Your task to perform on an android device: turn on location history Image 0: 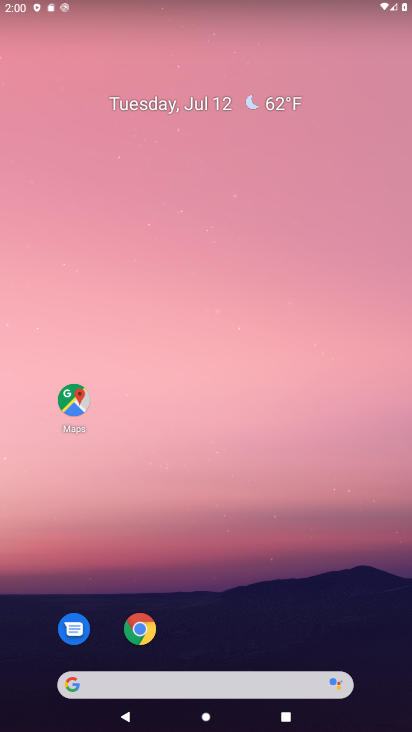
Step 0: drag from (220, 651) to (239, 37)
Your task to perform on an android device: turn on location history Image 1: 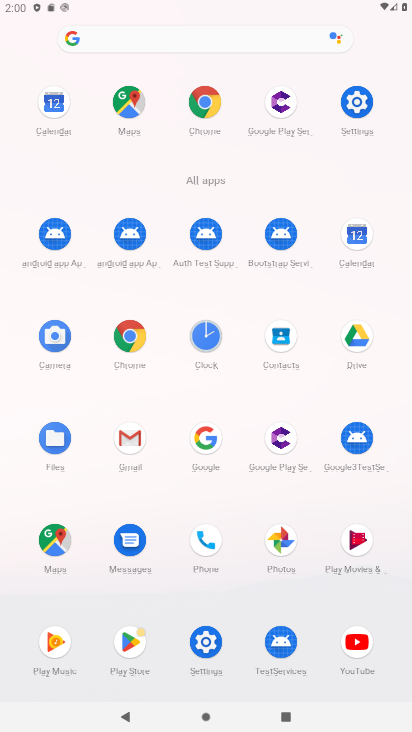
Step 1: click (352, 104)
Your task to perform on an android device: turn on location history Image 2: 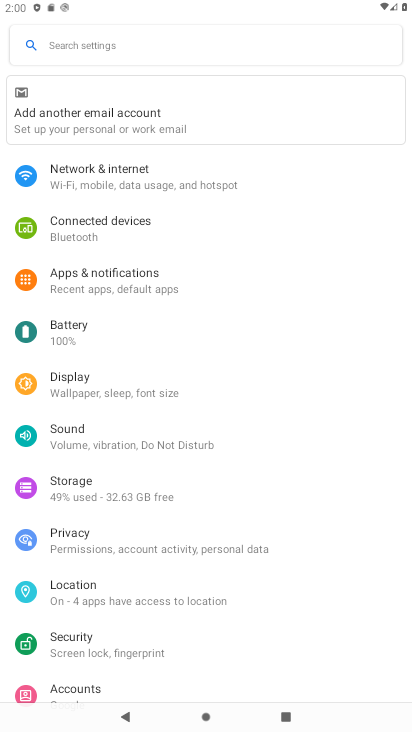
Step 2: click (104, 584)
Your task to perform on an android device: turn on location history Image 3: 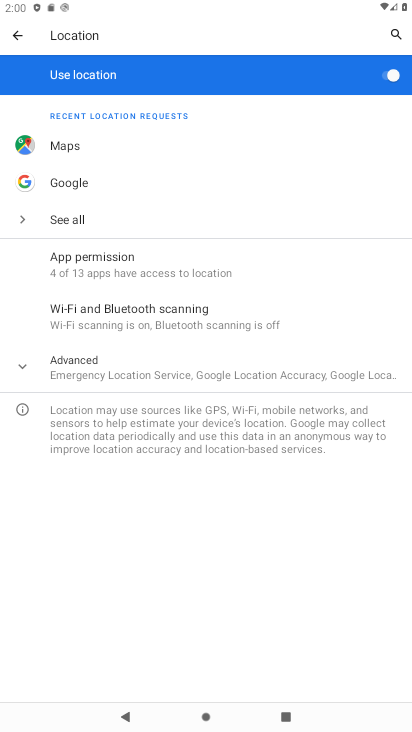
Step 3: click (27, 364)
Your task to perform on an android device: turn on location history Image 4: 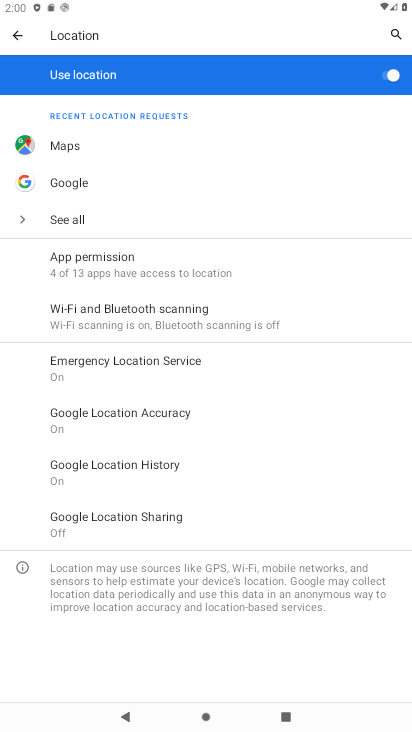
Step 4: click (181, 470)
Your task to perform on an android device: turn on location history Image 5: 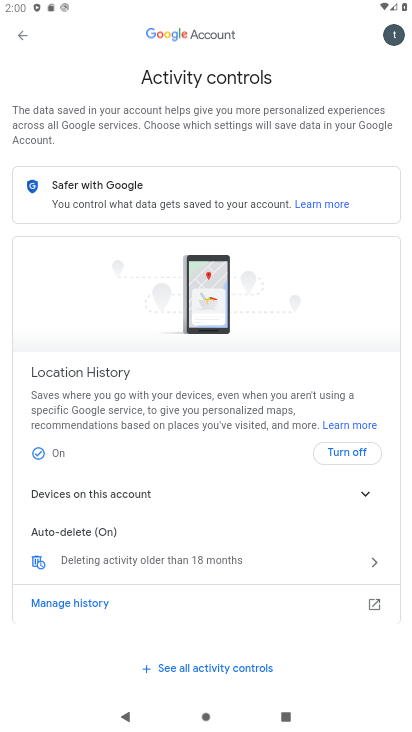
Step 5: task complete